Your task to perform on an android device: Open Google Chrome and open the bookmarks view Image 0: 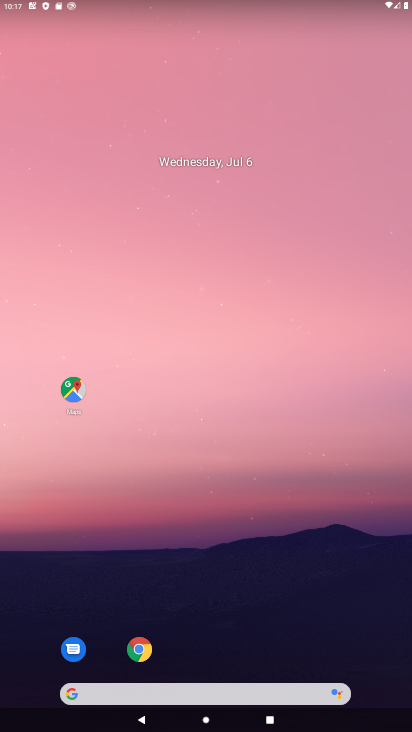
Step 0: drag from (371, 699) to (178, 67)
Your task to perform on an android device: Open Google Chrome and open the bookmarks view Image 1: 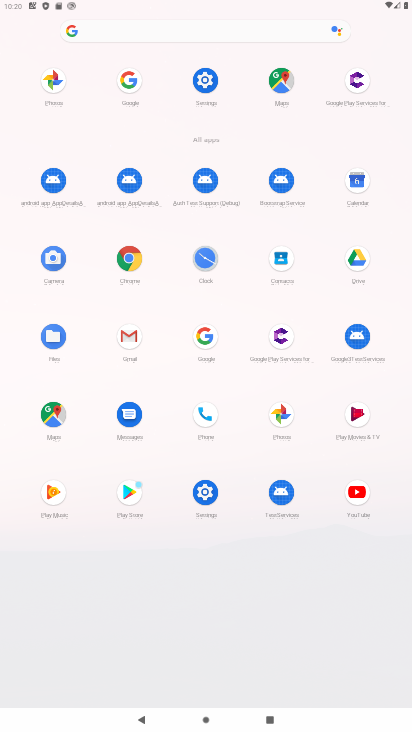
Step 1: click (124, 242)
Your task to perform on an android device: Open Google Chrome and open the bookmarks view Image 2: 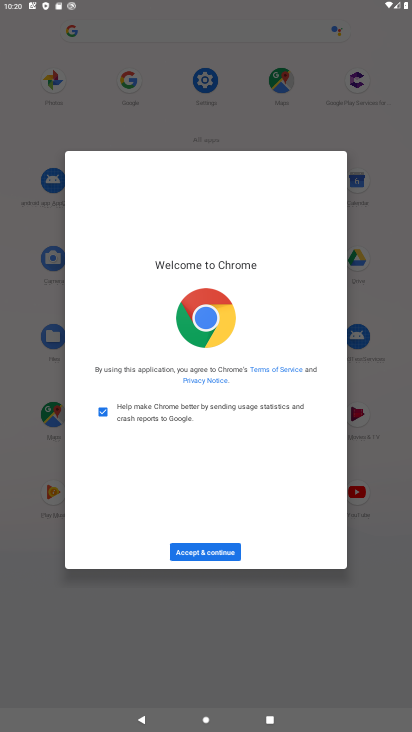
Step 2: click (194, 553)
Your task to perform on an android device: Open Google Chrome and open the bookmarks view Image 3: 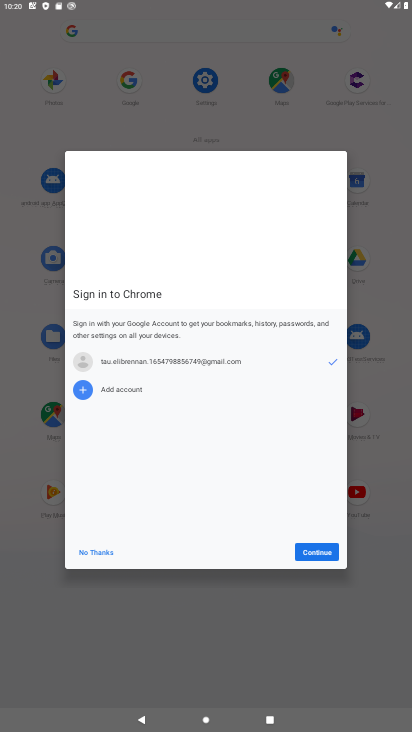
Step 3: click (322, 550)
Your task to perform on an android device: Open Google Chrome and open the bookmarks view Image 4: 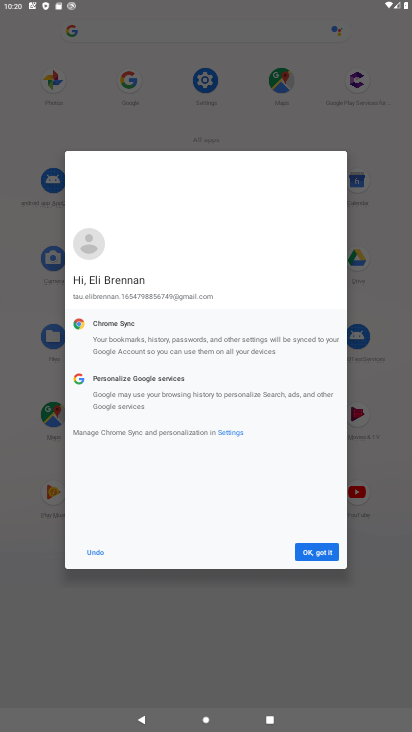
Step 4: click (322, 550)
Your task to perform on an android device: Open Google Chrome and open the bookmarks view Image 5: 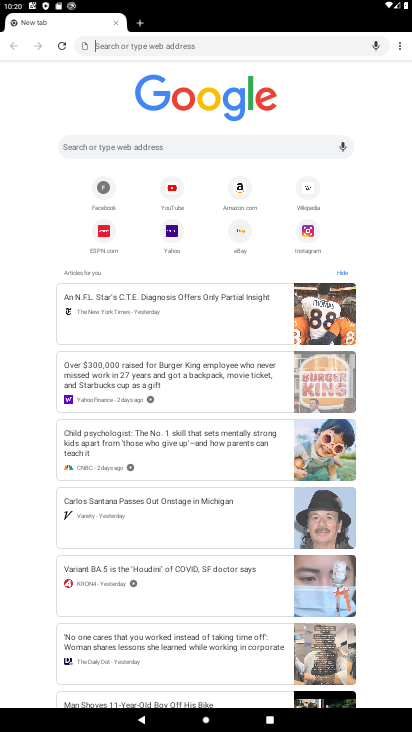
Step 5: click (399, 39)
Your task to perform on an android device: Open Google Chrome and open the bookmarks view Image 6: 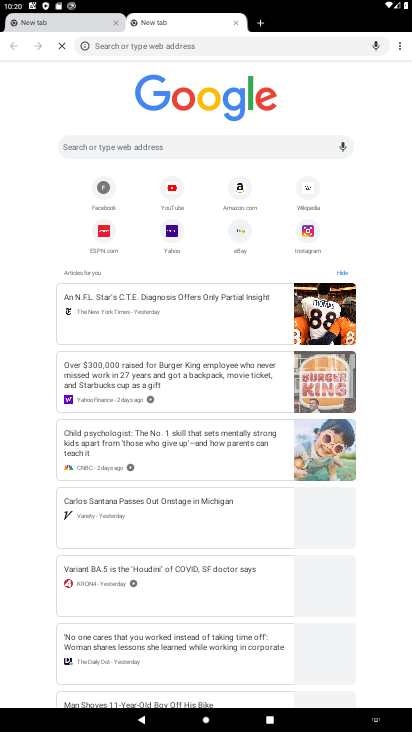
Step 6: click (397, 43)
Your task to perform on an android device: Open Google Chrome and open the bookmarks view Image 7: 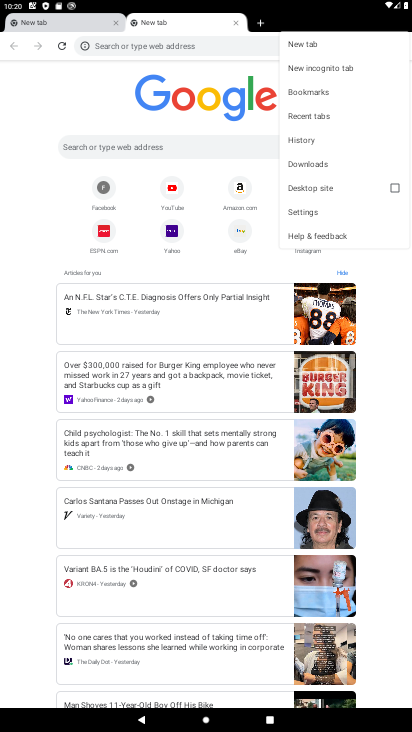
Step 7: click (329, 91)
Your task to perform on an android device: Open Google Chrome and open the bookmarks view Image 8: 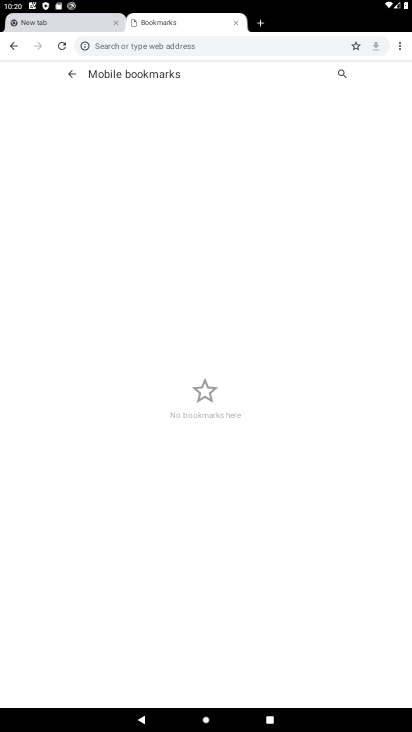
Step 8: task complete